Your task to perform on an android device: change keyboard looks Image 0: 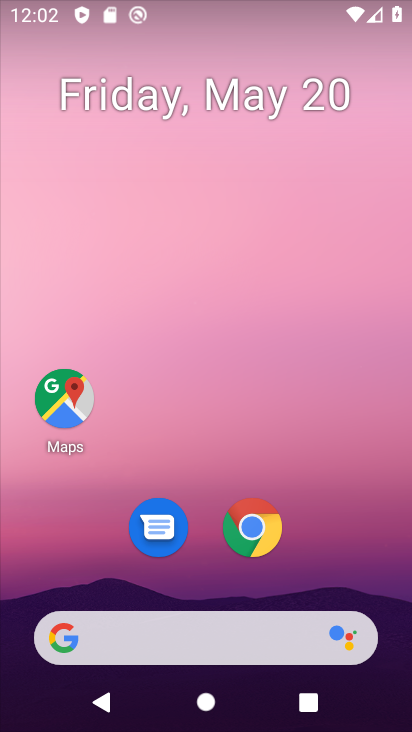
Step 0: drag from (354, 553) to (391, 2)
Your task to perform on an android device: change keyboard looks Image 1: 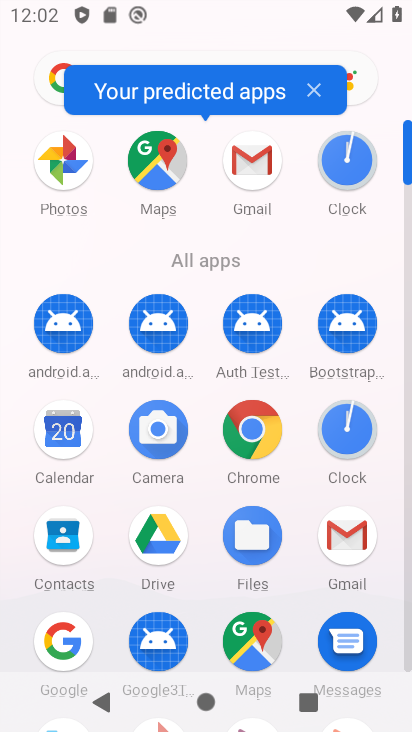
Step 1: click (406, 665)
Your task to perform on an android device: change keyboard looks Image 2: 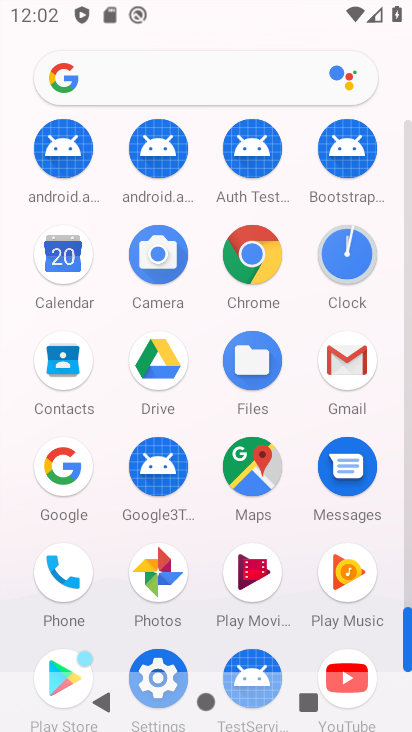
Step 2: click (150, 666)
Your task to perform on an android device: change keyboard looks Image 3: 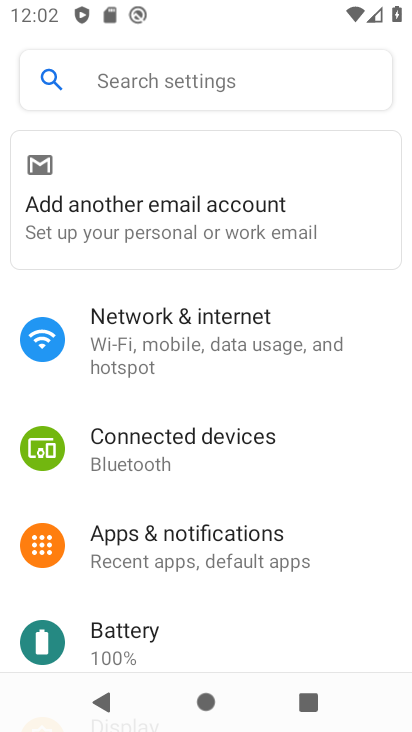
Step 3: drag from (199, 588) to (203, 38)
Your task to perform on an android device: change keyboard looks Image 4: 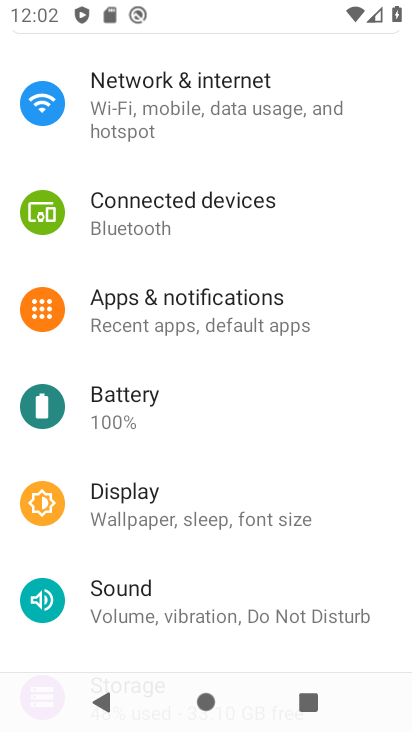
Step 4: drag from (219, 350) to (240, 66)
Your task to perform on an android device: change keyboard looks Image 5: 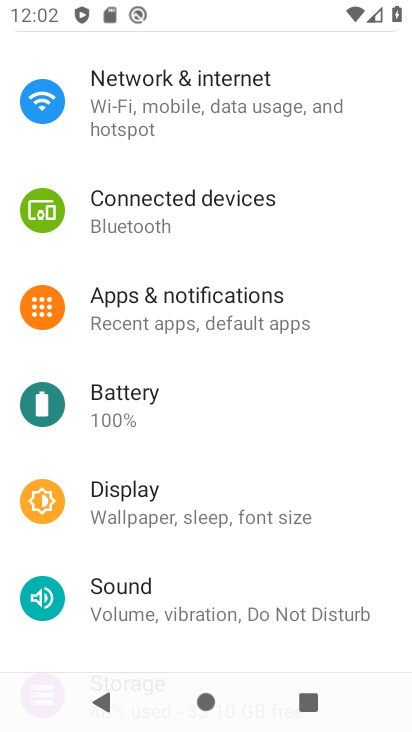
Step 5: drag from (219, 546) to (272, 87)
Your task to perform on an android device: change keyboard looks Image 6: 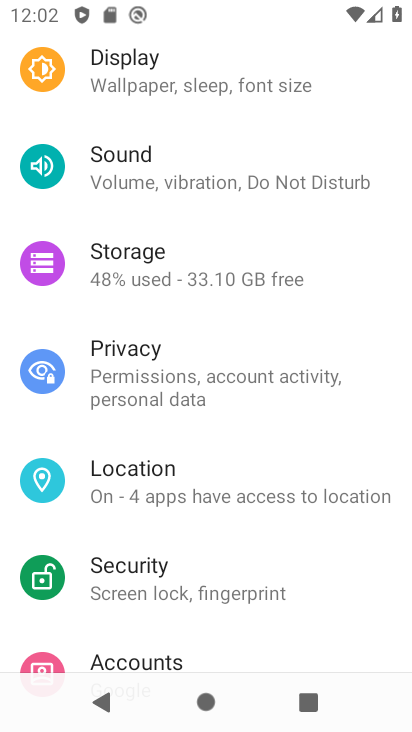
Step 6: drag from (185, 564) to (177, 103)
Your task to perform on an android device: change keyboard looks Image 7: 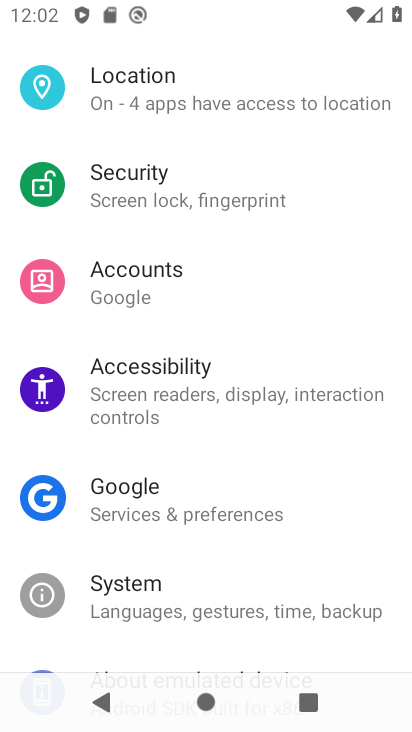
Step 7: click (155, 594)
Your task to perform on an android device: change keyboard looks Image 8: 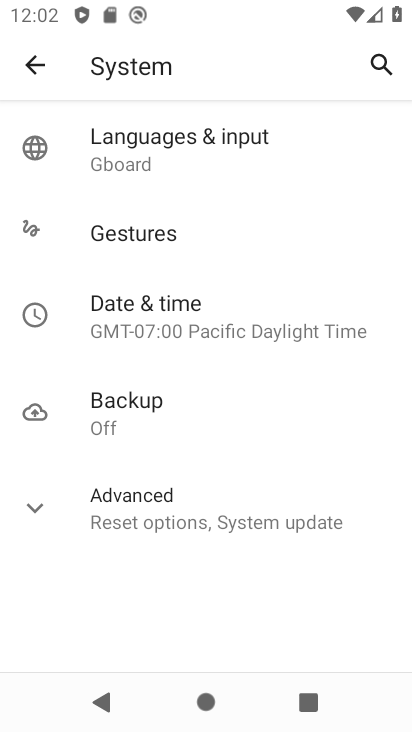
Step 8: click (179, 130)
Your task to perform on an android device: change keyboard looks Image 9: 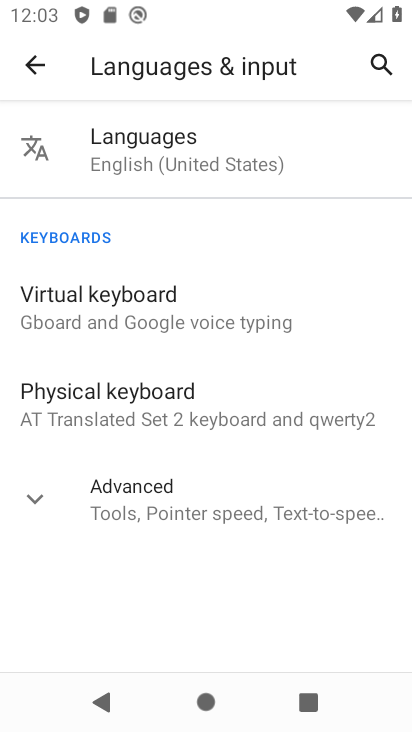
Step 9: click (141, 282)
Your task to perform on an android device: change keyboard looks Image 10: 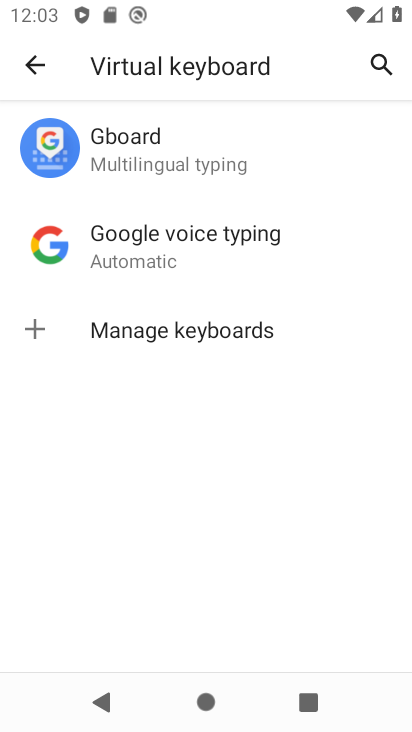
Step 10: click (164, 151)
Your task to perform on an android device: change keyboard looks Image 11: 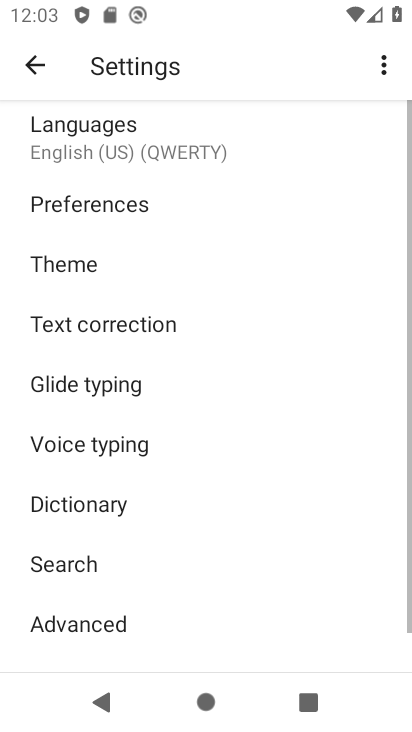
Step 11: click (97, 249)
Your task to perform on an android device: change keyboard looks Image 12: 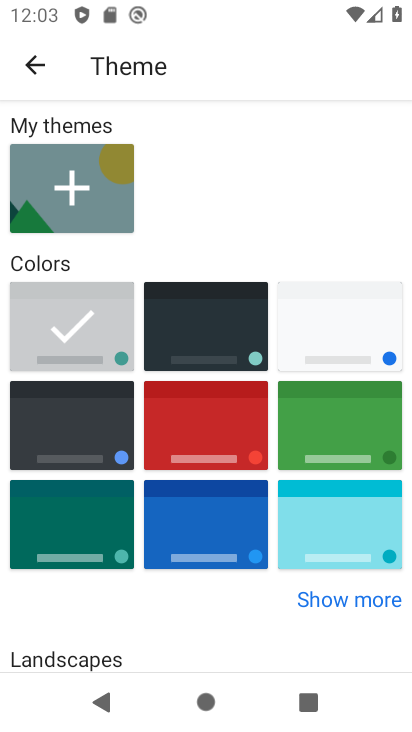
Step 12: click (213, 454)
Your task to perform on an android device: change keyboard looks Image 13: 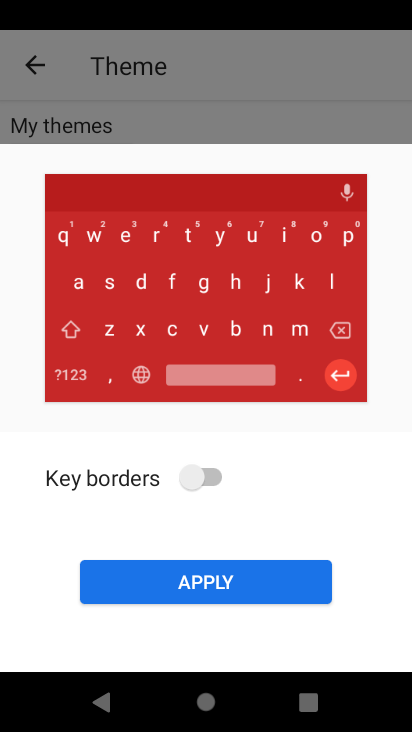
Step 13: click (222, 641)
Your task to perform on an android device: change keyboard looks Image 14: 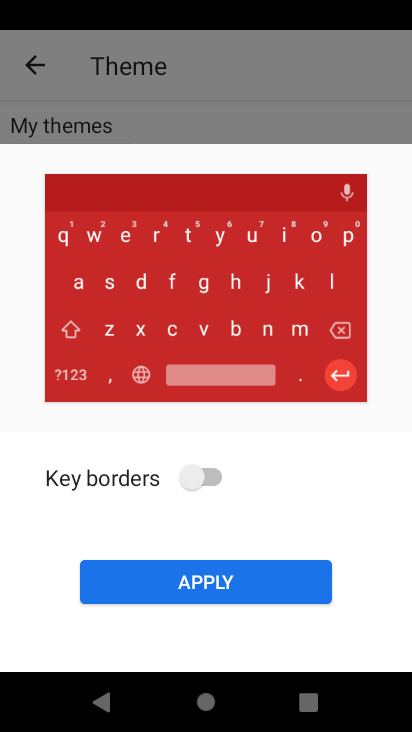
Step 14: click (225, 590)
Your task to perform on an android device: change keyboard looks Image 15: 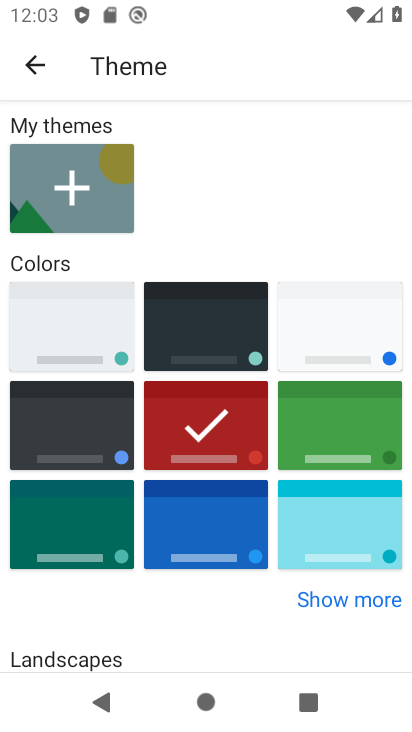
Step 15: task complete